Your task to perform on an android device: Open Google Chrome and open the bookmarks view Image 0: 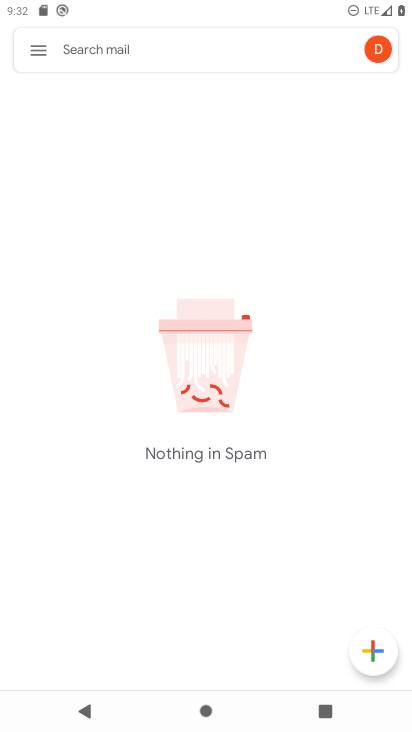
Step 0: click (43, 46)
Your task to perform on an android device: Open Google Chrome and open the bookmarks view Image 1: 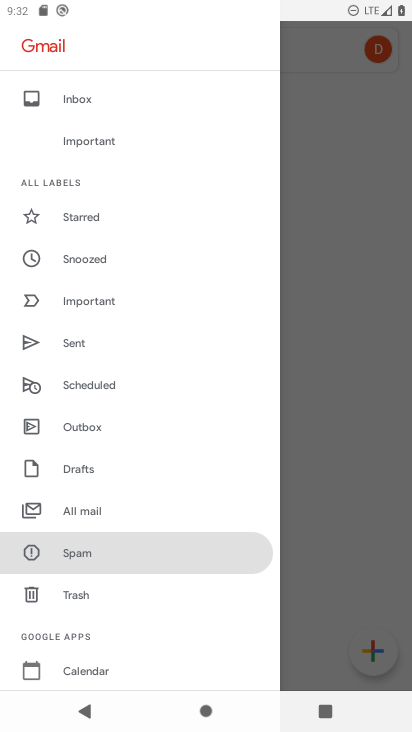
Step 1: press home button
Your task to perform on an android device: Open Google Chrome and open the bookmarks view Image 2: 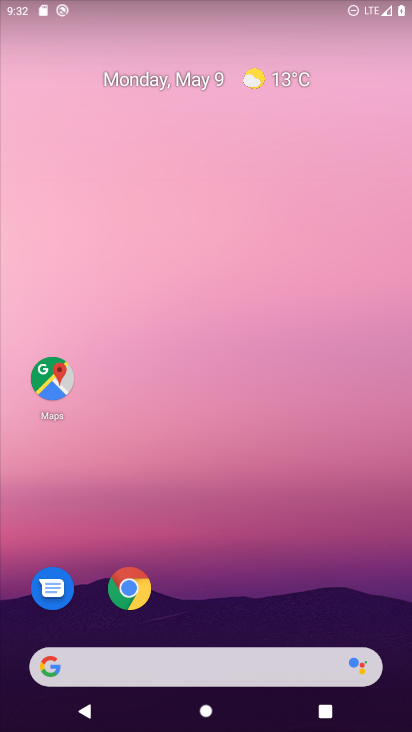
Step 2: click (138, 589)
Your task to perform on an android device: Open Google Chrome and open the bookmarks view Image 3: 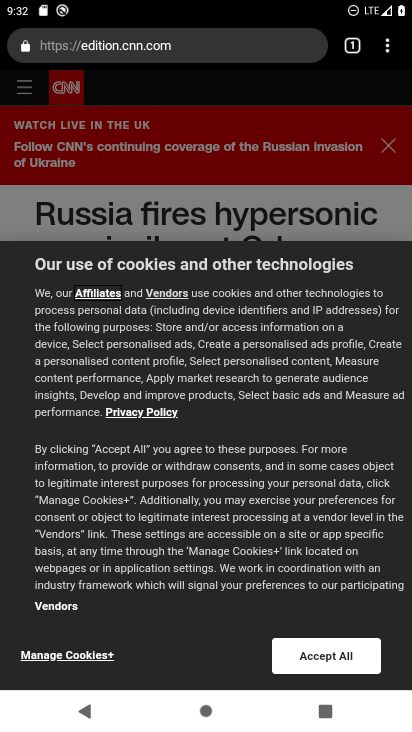
Step 3: click (387, 60)
Your task to perform on an android device: Open Google Chrome and open the bookmarks view Image 4: 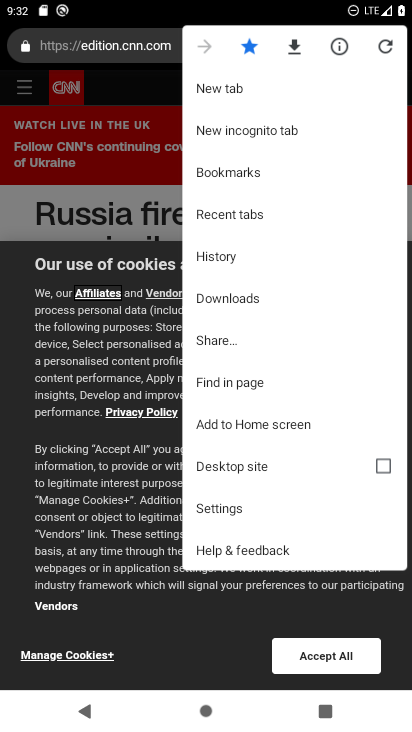
Step 4: click (275, 175)
Your task to perform on an android device: Open Google Chrome and open the bookmarks view Image 5: 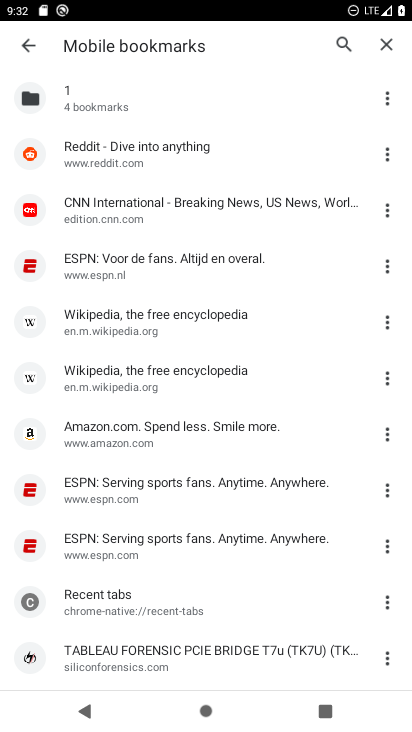
Step 5: task complete